Your task to perform on an android device: check out phone information Image 0: 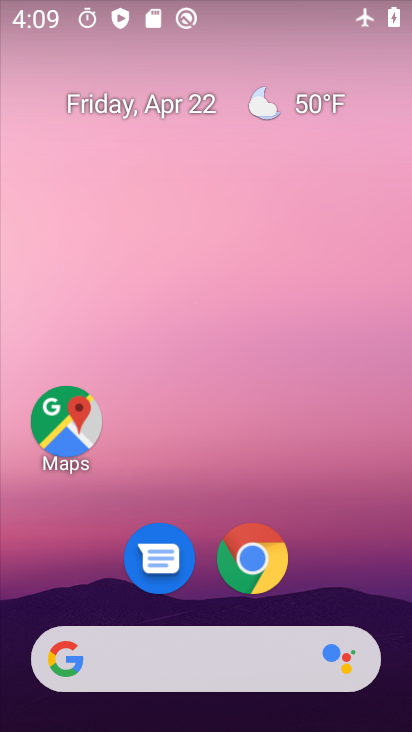
Step 0: click (254, 195)
Your task to perform on an android device: check out phone information Image 1: 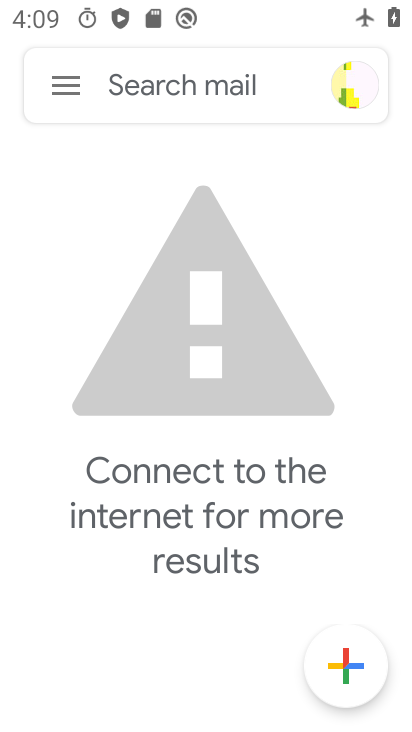
Step 1: press home button
Your task to perform on an android device: check out phone information Image 2: 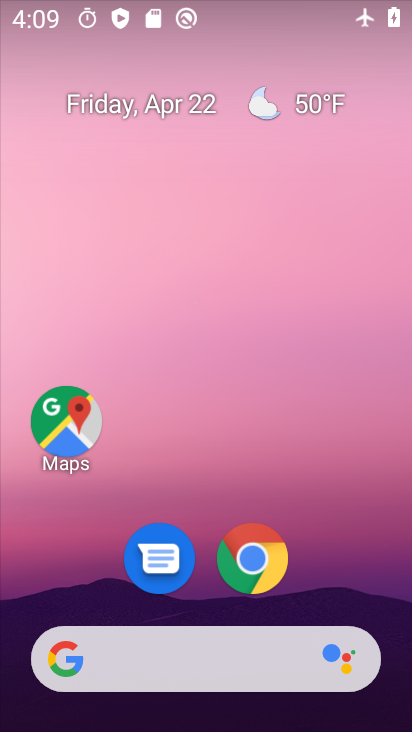
Step 2: drag from (310, 574) to (201, 194)
Your task to perform on an android device: check out phone information Image 3: 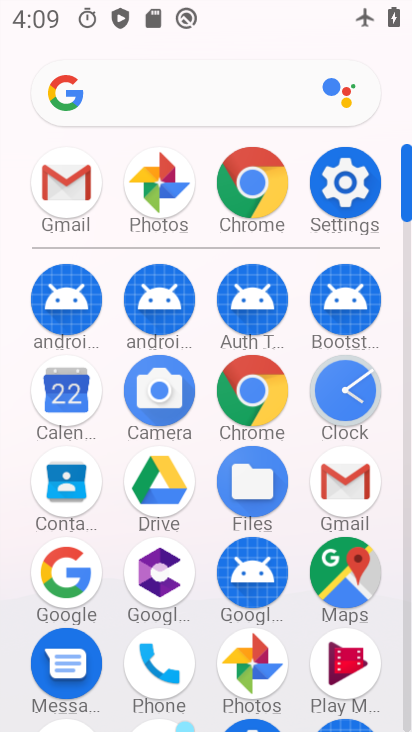
Step 3: click (346, 196)
Your task to perform on an android device: check out phone information Image 4: 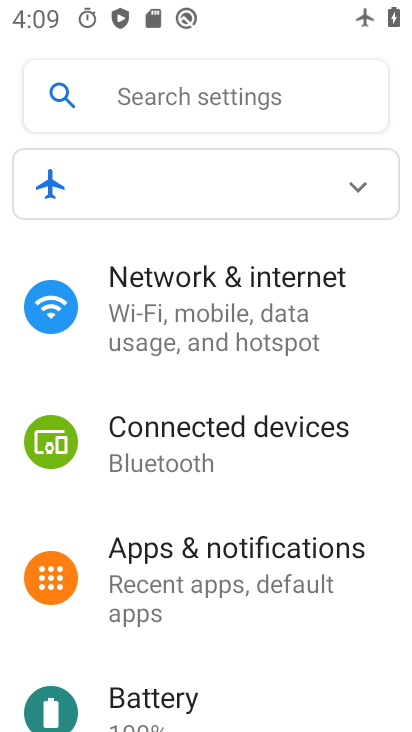
Step 4: drag from (191, 282) to (201, 150)
Your task to perform on an android device: check out phone information Image 5: 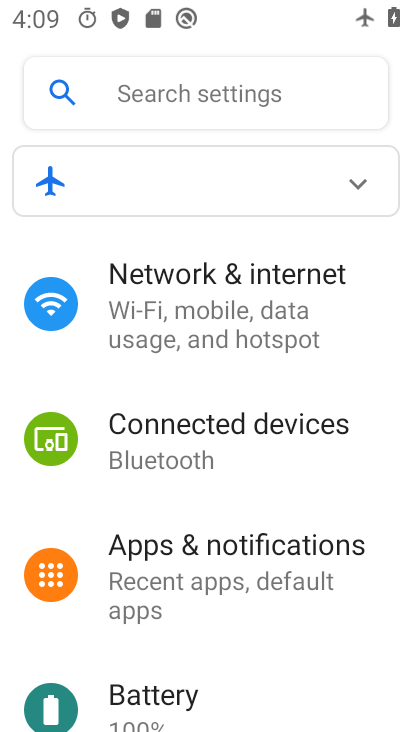
Step 5: drag from (226, 625) to (279, 159)
Your task to perform on an android device: check out phone information Image 6: 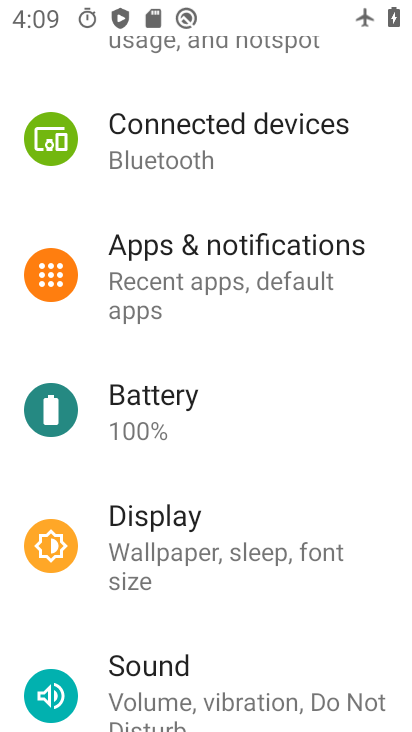
Step 6: drag from (219, 623) to (241, 183)
Your task to perform on an android device: check out phone information Image 7: 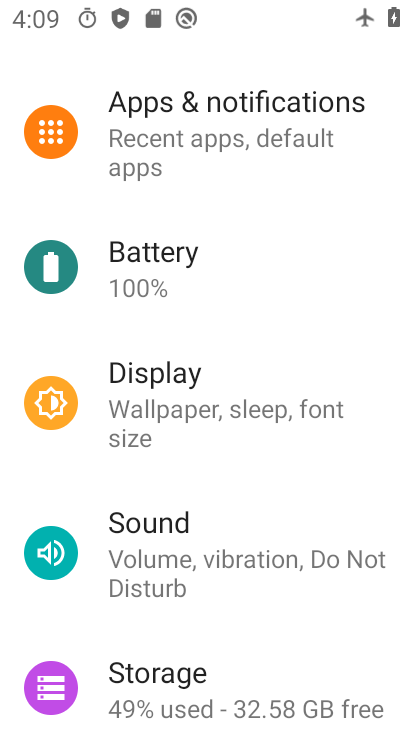
Step 7: drag from (222, 713) to (267, 260)
Your task to perform on an android device: check out phone information Image 8: 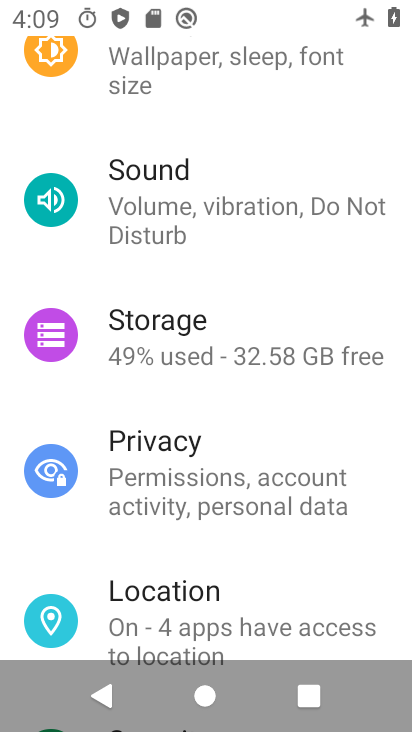
Step 8: drag from (192, 558) to (199, 211)
Your task to perform on an android device: check out phone information Image 9: 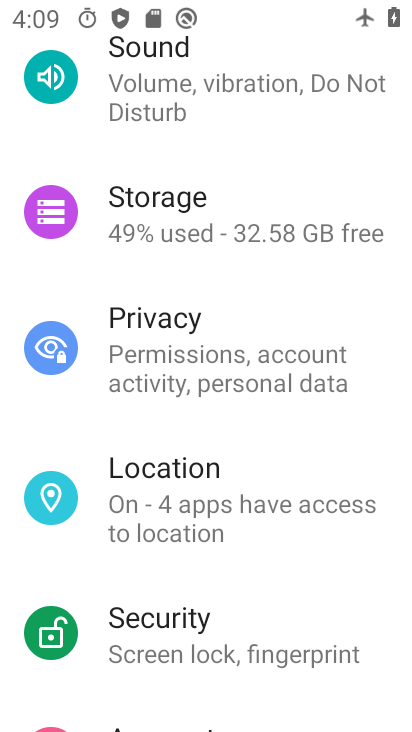
Step 9: drag from (157, 553) to (177, 217)
Your task to perform on an android device: check out phone information Image 10: 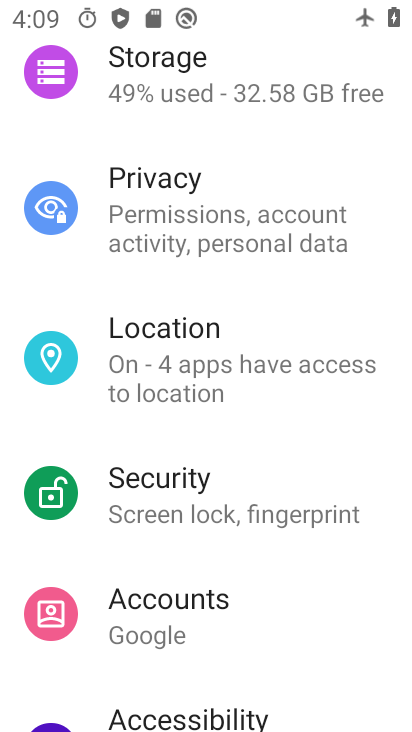
Step 10: drag from (160, 704) to (166, 247)
Your task to perform on an android device: check out phone information Image 11: 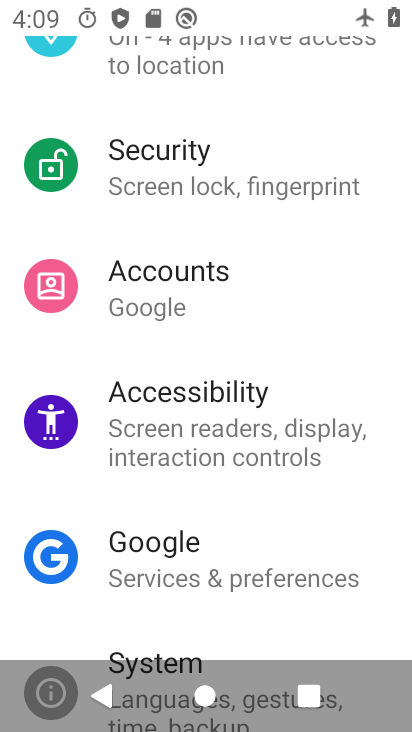
Step 11: drag from (178, 639) to (212, 259)
Your task to perform on an android device: check out phone information Image 12: 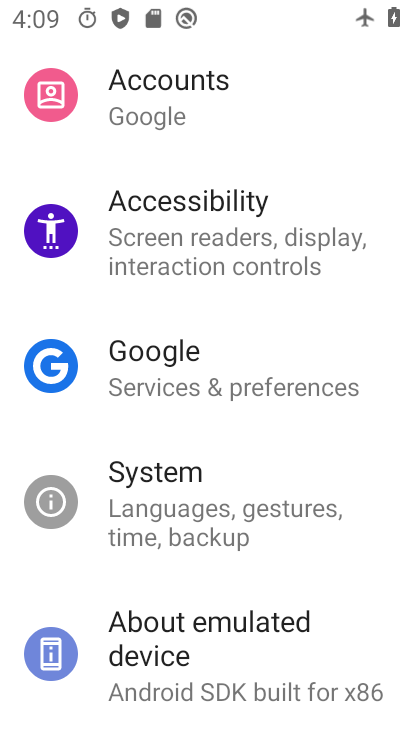
Step 12: click (198, 649)
Your task to perform on an android device: check out phone information Image 13: 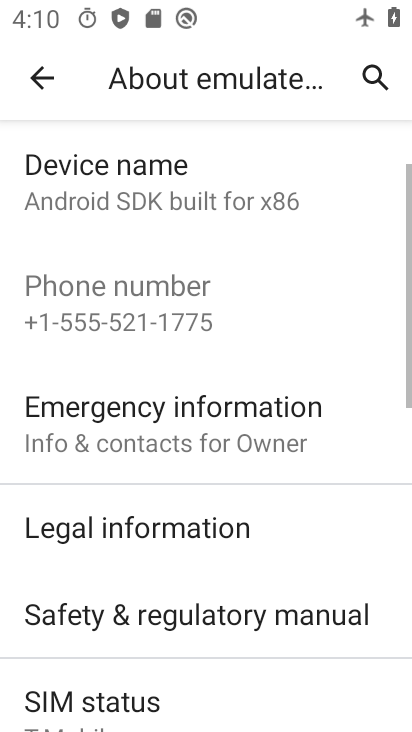
Step 13: task complete